Your task to perform on an android device: Go to sound settings Image 0: 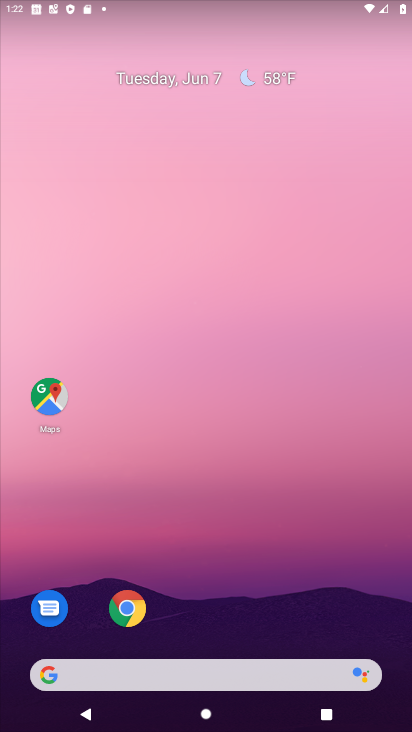
Step 0: drag from (245, 244) to (252, 51)
Your task to perform on an android device: Go to sound settings Image 1: 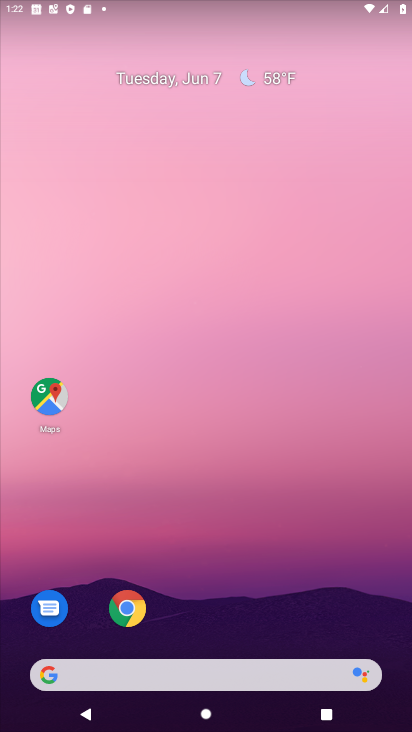
Step 1: drag from (197, 496) to (231, 98)
Your task to perform on an android device: Go to sound settings Image 2: 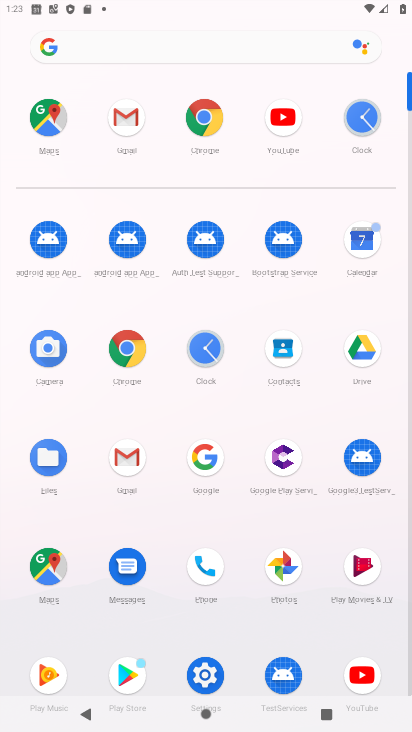
Step 2: click (201, 670)
Your task to perform on an android device: Go to sound settings Image 3: 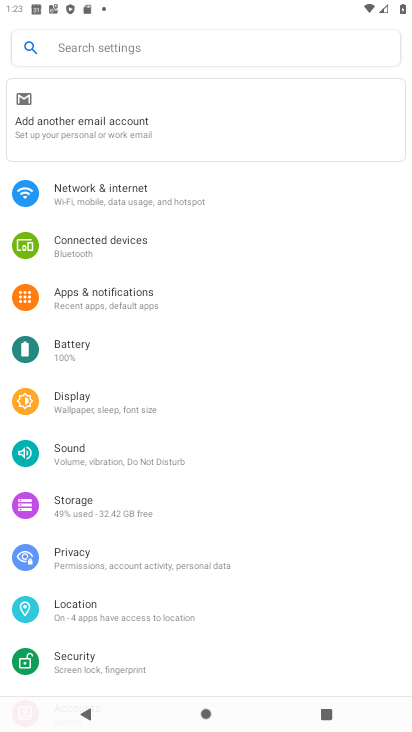
Step 3: click (123, 459)
Your task to perform on an android device: Go to sound settings Image 4: 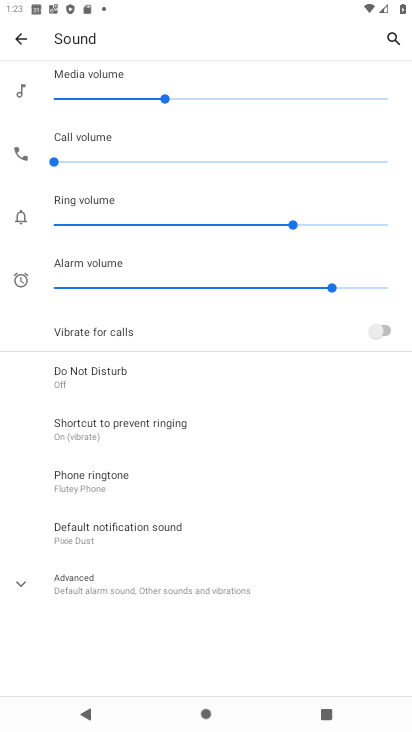
Step 4: task complete